Your task to perform on an android device: Open Google Chrome and open the bookmarks view Image 0: 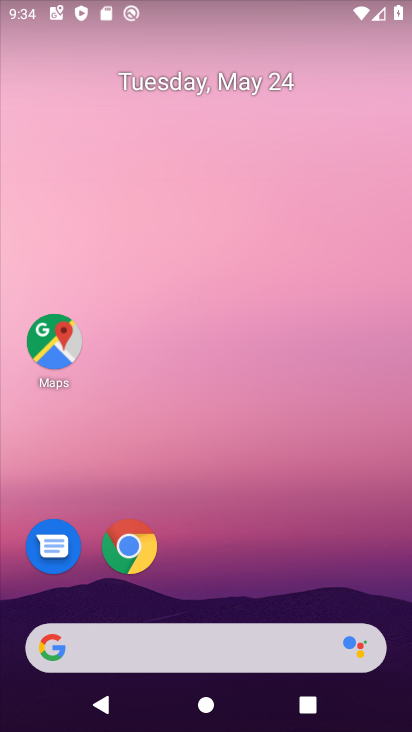
Step 0: click (130, 549)
Your task to perform on an android device: Open Google Chrome and open the bookmarks view Image 1: 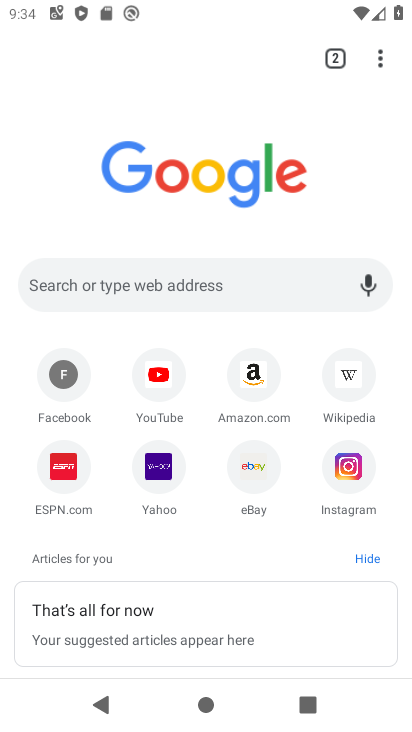
Step 1: click (383, 57)
Your task to perform on an android device: Open Google Chrome and open the bookmarks view Image 2: 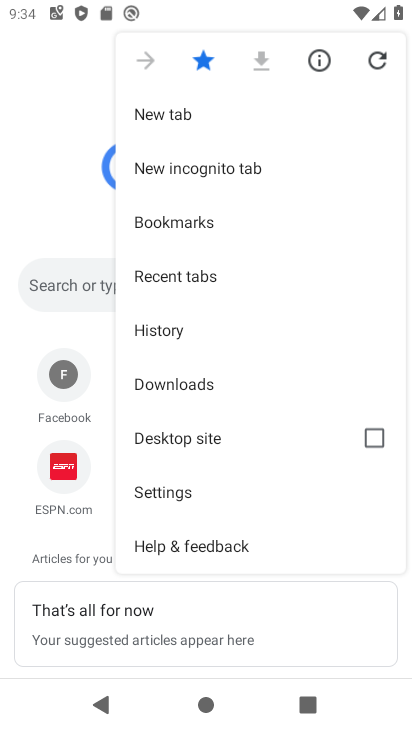
Step 2: click (181, 224)
Your task to perform on an android device: Open Google Chrome and open the bookmarks view Image 3: 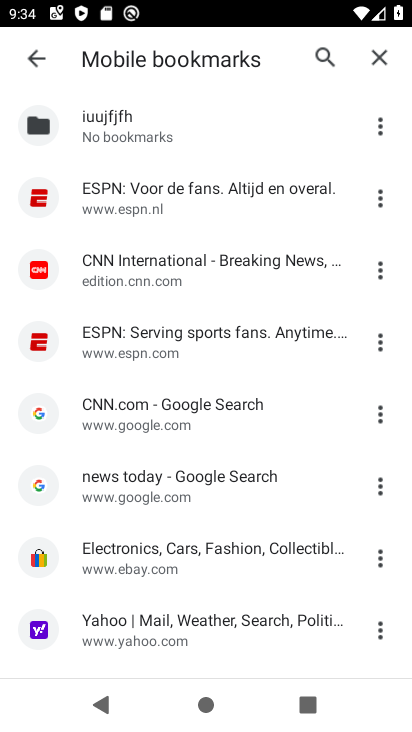
Step 3: task complete